Your task to perform on an android device: Open Google Chrome Image 0: 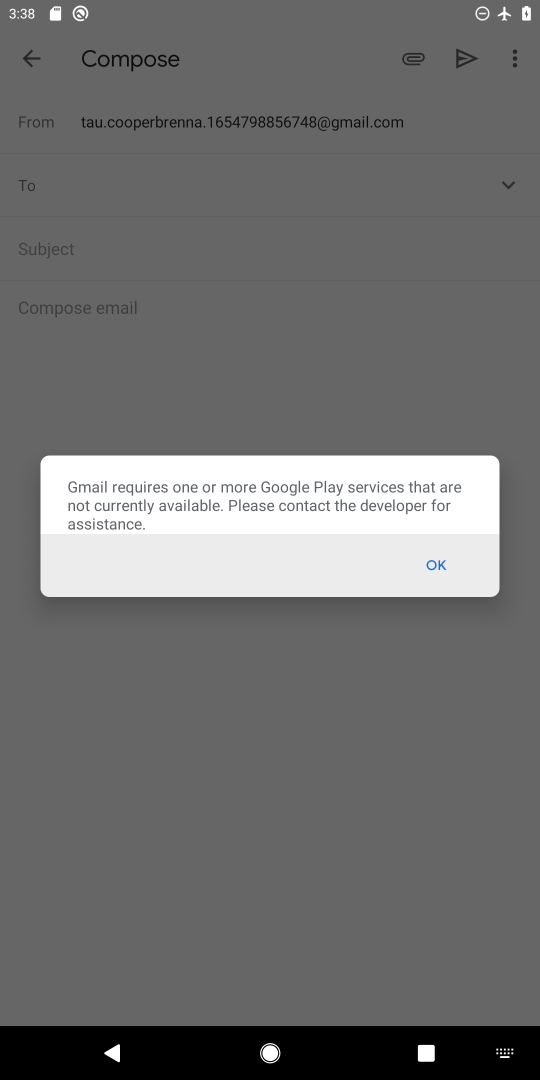
Step 0: press home button
Your task to perform on an android device: Open Google Chrome Image 1: 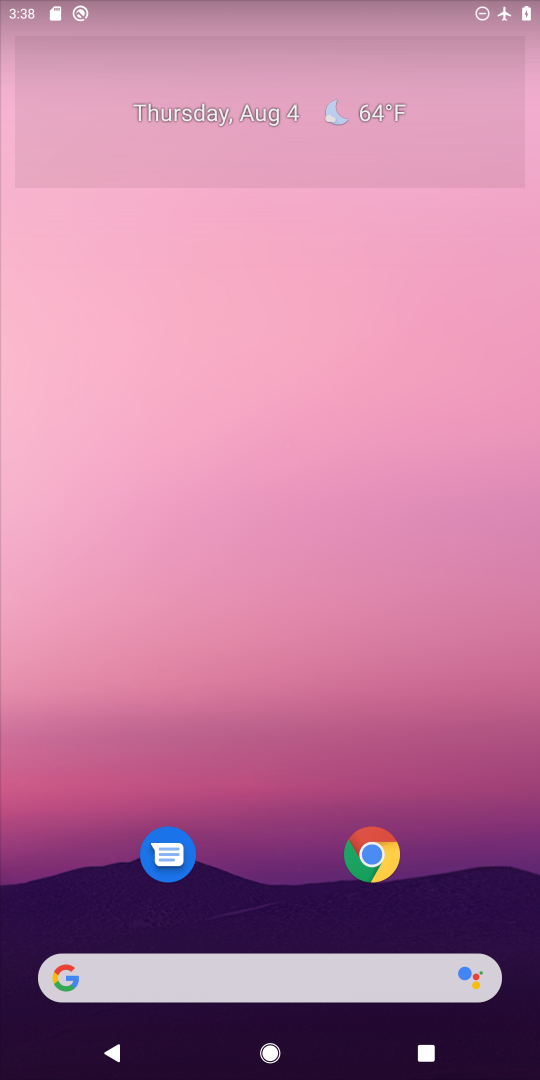
Step 1: click (377, 863)
Your task to perform on an android device: Open Google Chrome Image 2: 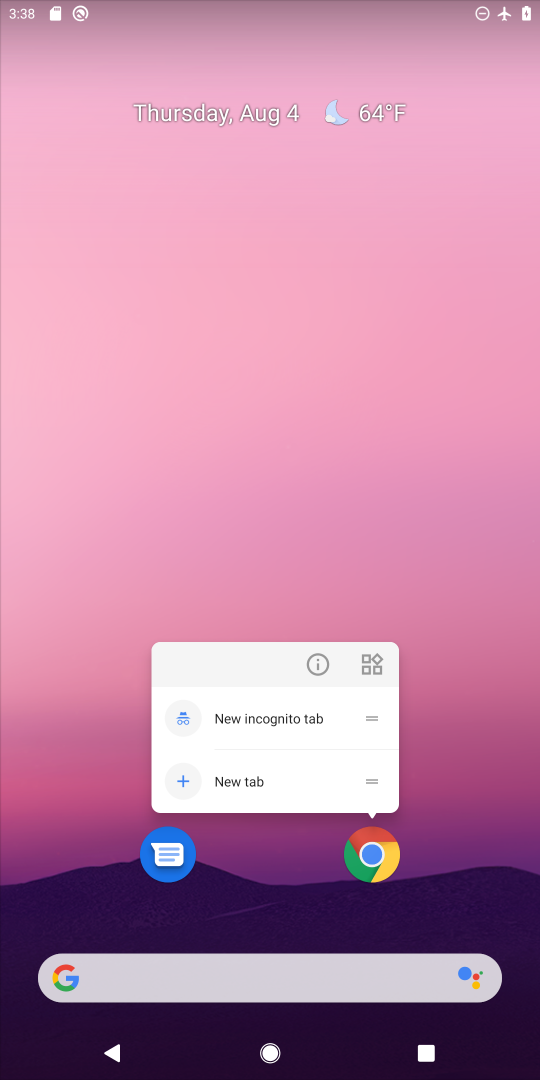
Step 2: click (377, 848)
Your task to perform on an android device: Open Google Chrome Image 3: 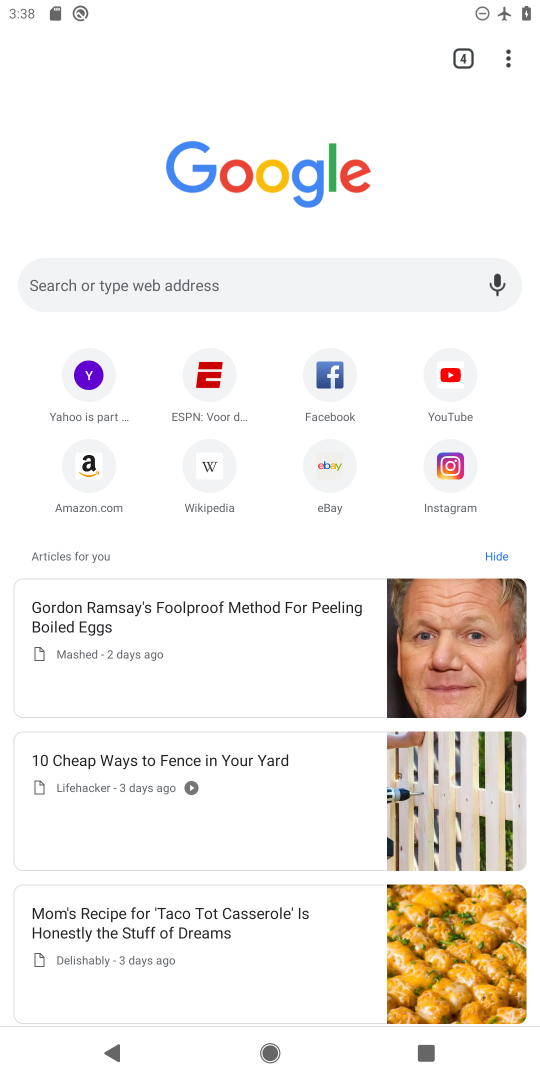
Step 3: task complete